Your task to perform on an android device: show emergency info Image 0: 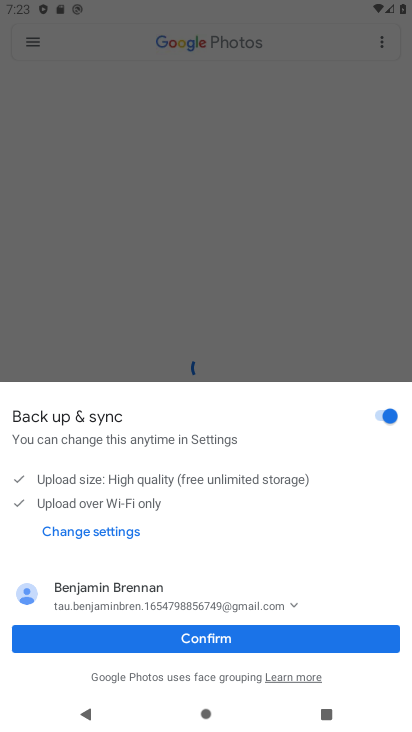
Step 0: press home button
Your task to perform on an android device: show emergency info Image 1: 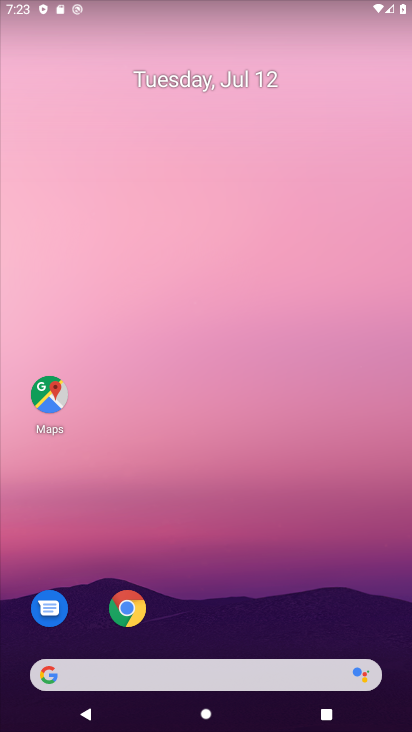
Step 1: drag from (192, 673) to (381, 140)
Your task to perform on an android device: show emergency info Image 2: 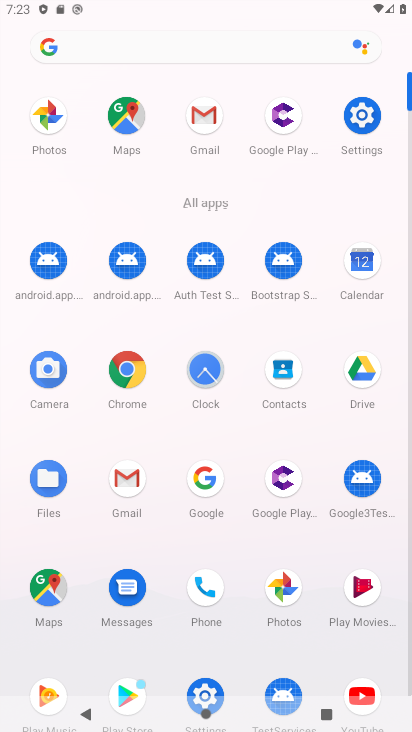
Step 2: click (356, 117)
Your task to perform on an android device: show emergency info Image 3: 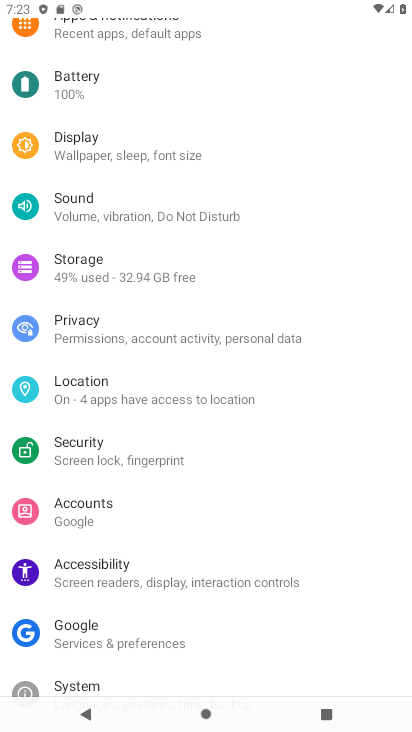
Step 3: drag from (220, 606) to (411, 163)
Your task to perform on an android device: show emergency info Image 4: 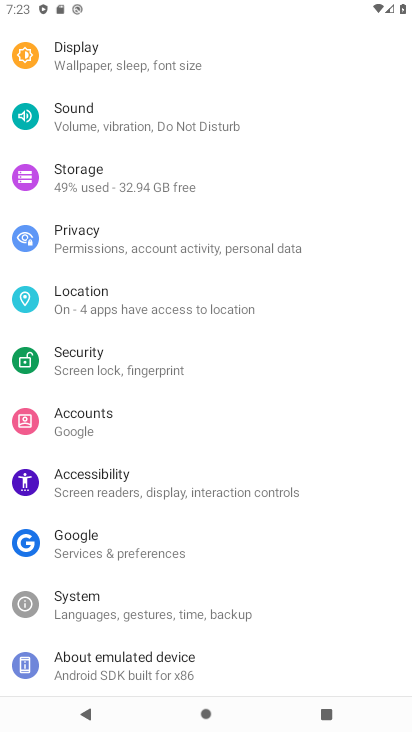
Step 4: drag from (237, 384) to (411, 146)
Your task to perform on an android device: show emergency info Image 5: 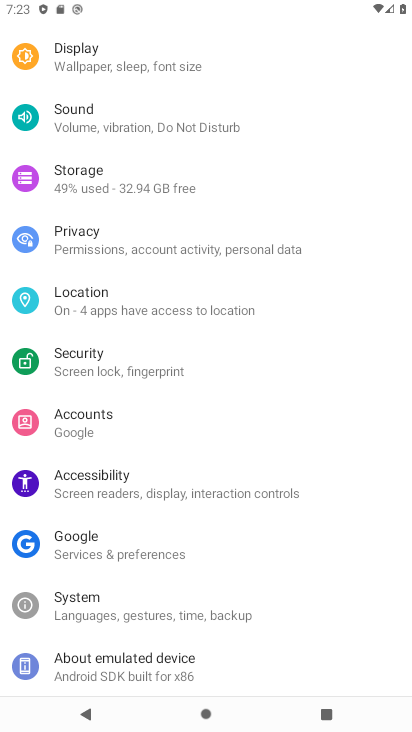
Step 5: click (141, 665)
Your task to perform on an android device: show emergency info Image 6: 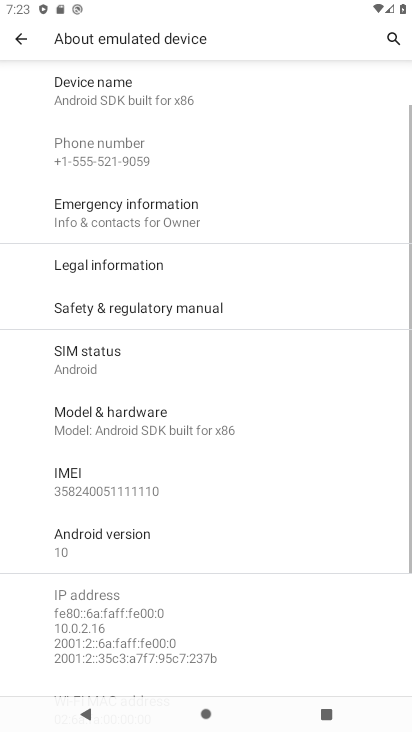
Step 6: click (172, 222)
Your task to perform on an android device: show emergency info Image 7: 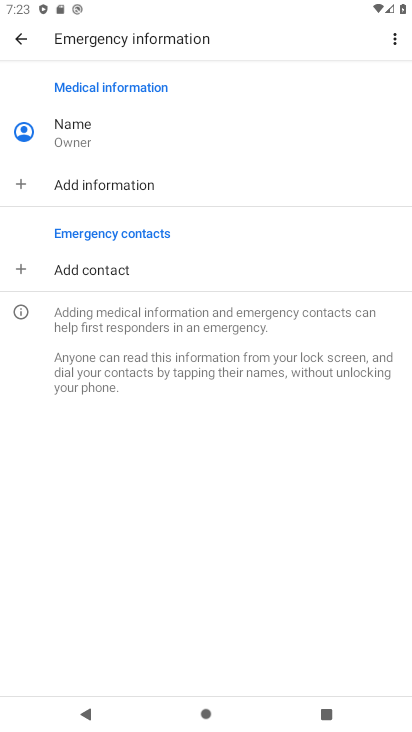
Step 7: task complete